Your task to perform on an android device: turn on airplane mode Image 0: 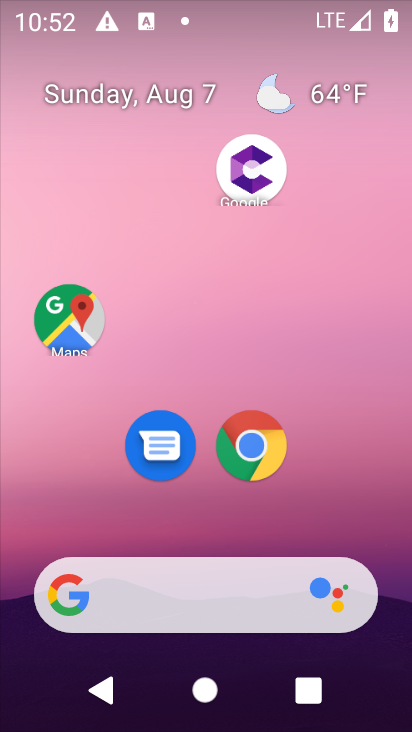
Step 0: press home button
Your task to perform on an android device: turn on airplane mode Image 1: 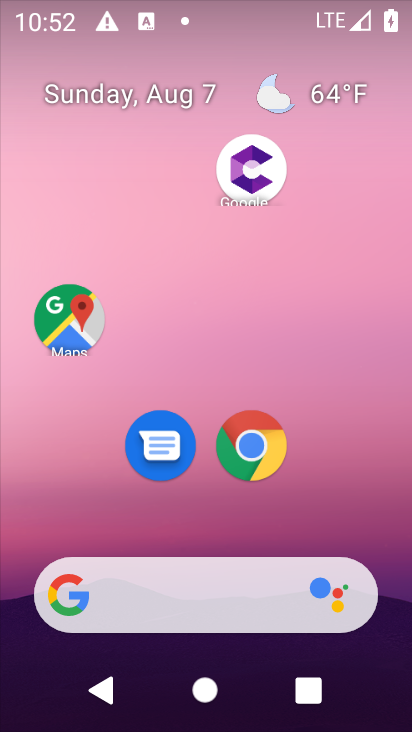
Step 1: drag from (225, 14) to (228, 484)
Your task to perform on an android device: turn on airplane mode Image 2: 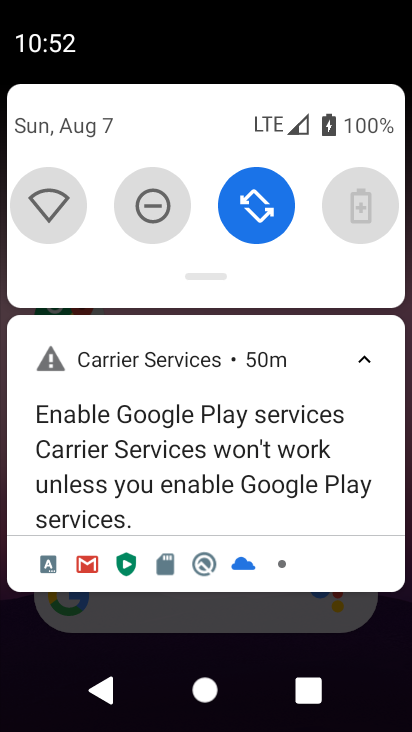
Step 2: drag from (235, 268) to (232, 717)
Your task to perform on an android device: turn on airplane mode Image 3: 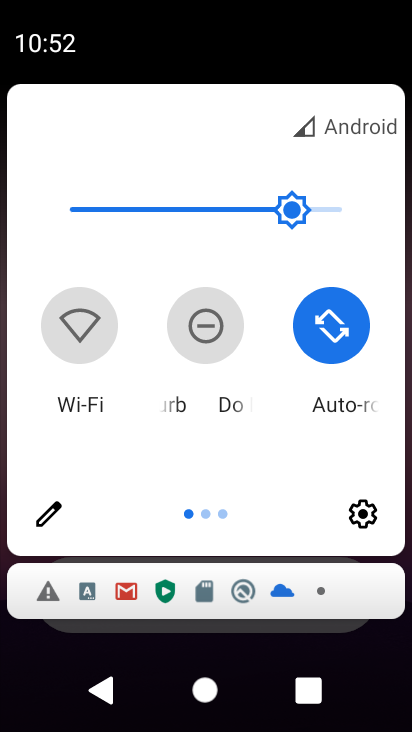
Step 3: drag from (361, 356) to (4, 343)
Your task to perform on an android device: turn on airplane mode Image 4: 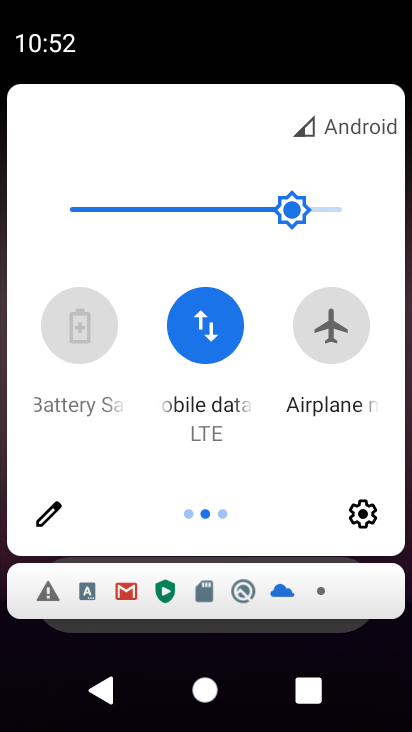
Step 4: click (327, 324)
Your task to perform on an android device: turn on airplane mode Image 5: 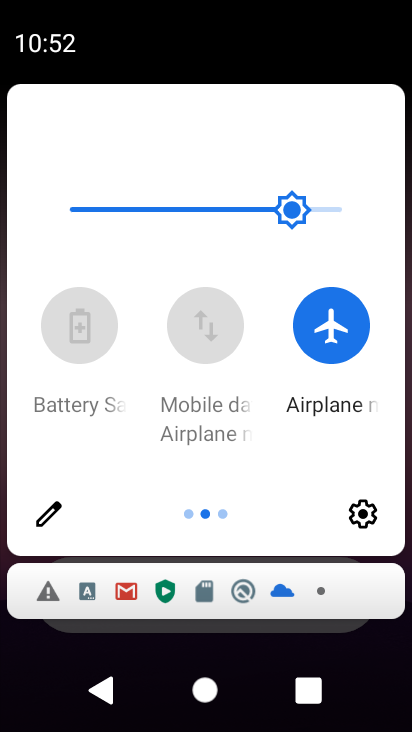
Step 5: task complete